Your task to perform on an android device: Go to network settings Image 0: 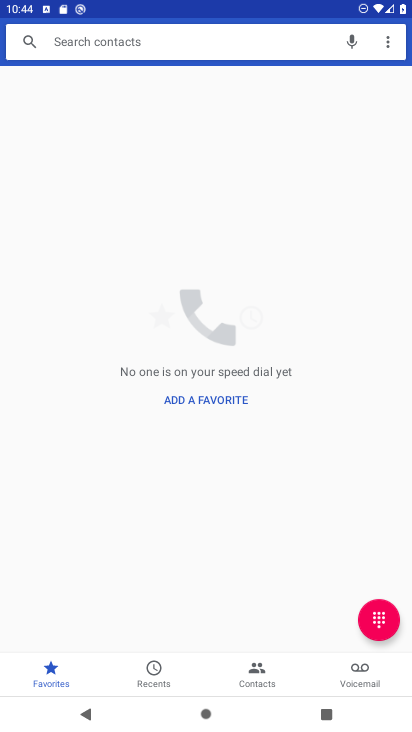
Step 0: press home button
Your task to perform on an android device: Go to network settings Image 1: 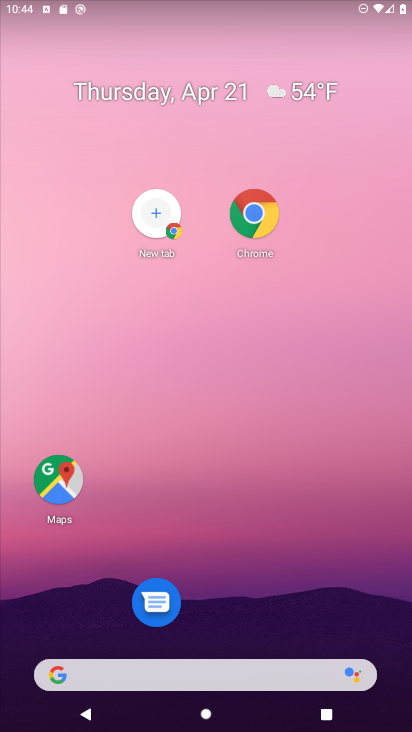
Step 1: drag from (225, 624) to (243, 190)
Your task to perform on an android device: Go to network settings Image 2: 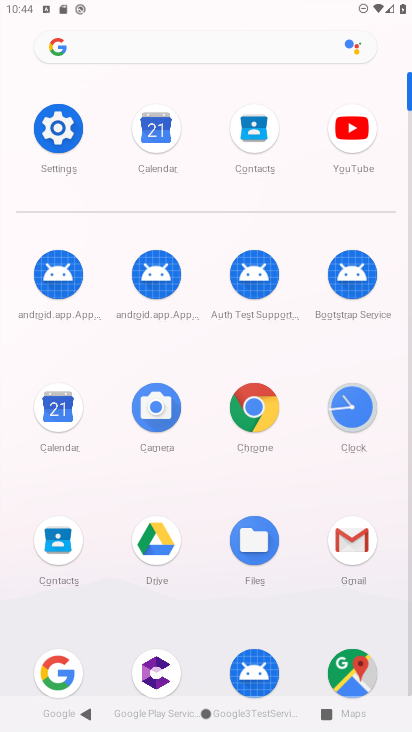
Step 2: click (47, 127)
Your task to perform on an android device: Go to network settings Image 3: 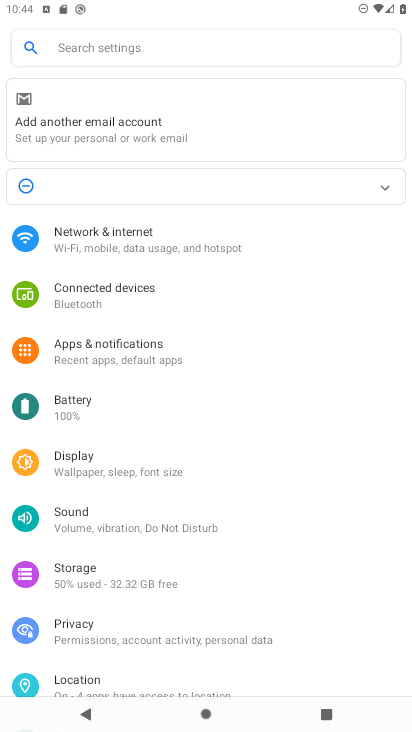
Step 3: click (258, 238)
Your task to perform on an android device: Go to network settings Image 4: 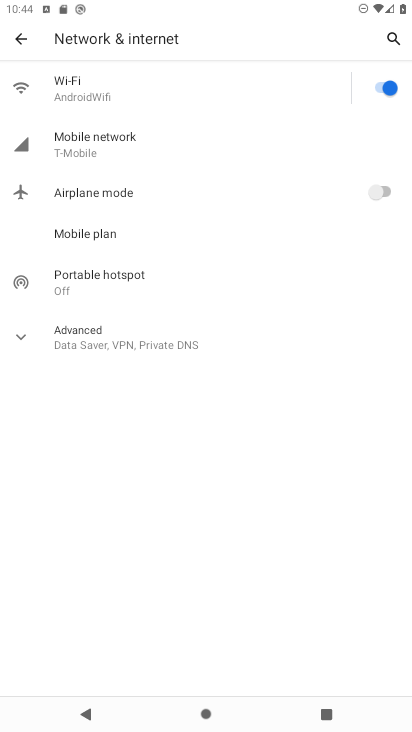
Step 4: click (115, 151)
Your task to perform on an android device: Go to network settings Image 5: 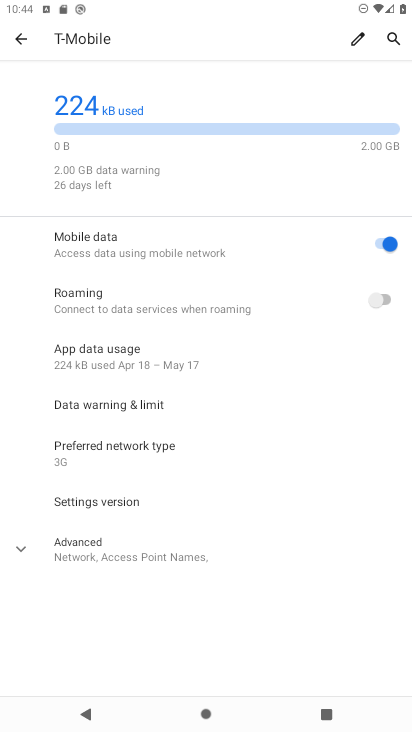
Step 5: task complete